Your task to perform on an android device: toggle improve location accuracy Image 0: 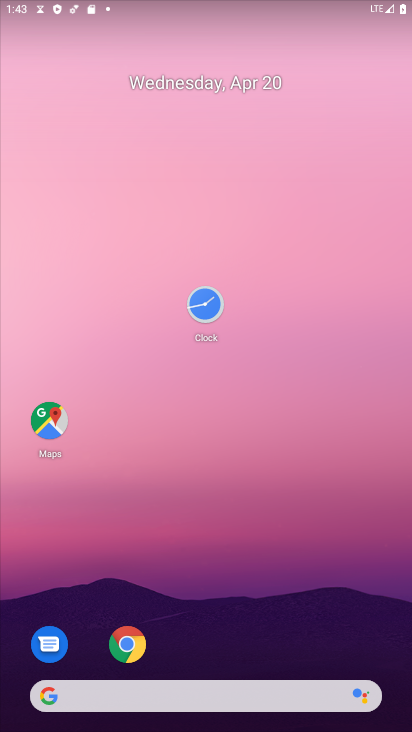
Step 0: drag from (296, 667) to (246, 170)
Your task to perform on an android device: toggle improve location accuracy Image 1: 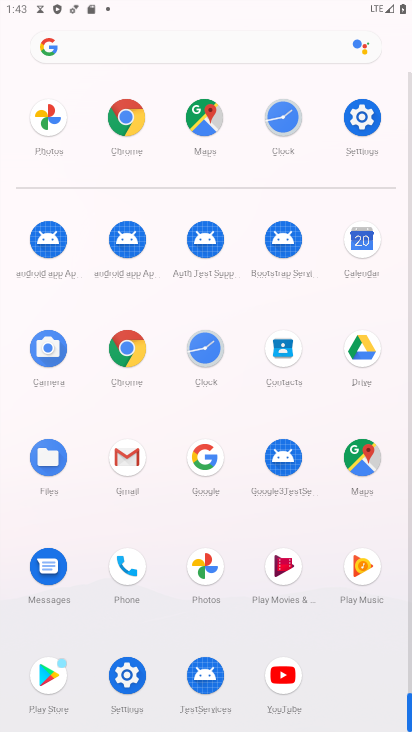
Step 1: click (126, 677)
Your task to perform on an android device: toggle improve location accuracy Image 2: 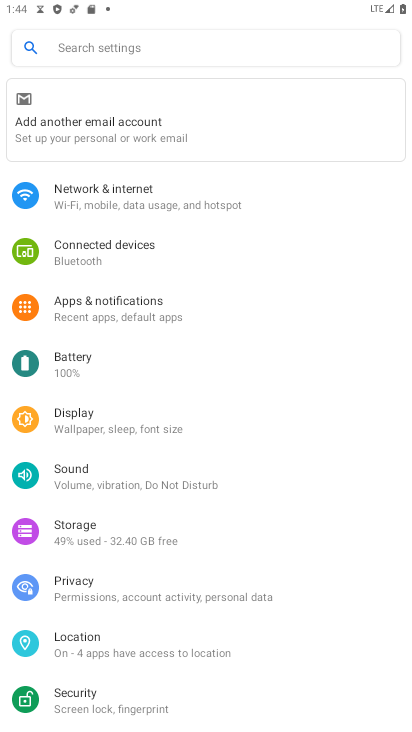
Step 2: drag from (149, 646) to (130, 272)
Your task to perform on an android device: toggle improve location accuracy Image 3: 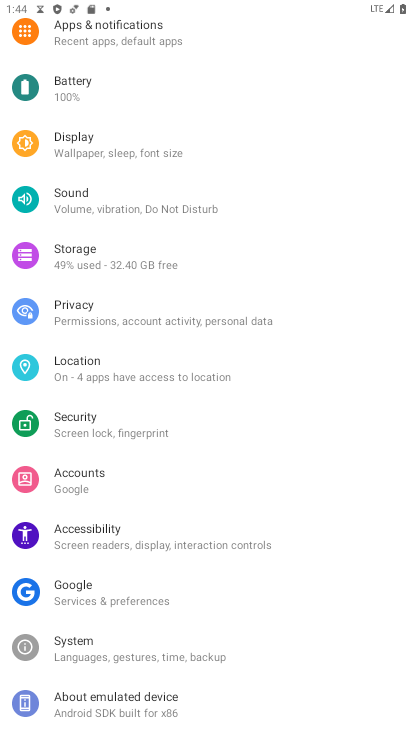
Step 3: click (100, 363)
Your task to perform on an android device: toggle improve location accuracy Image 4: 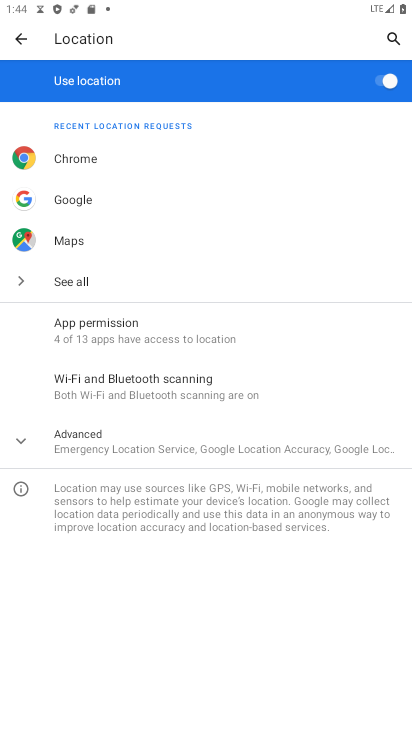
Step 4: click (156, 446)
Your task to perform on an android device: toggle improve location accuracy Image 5: 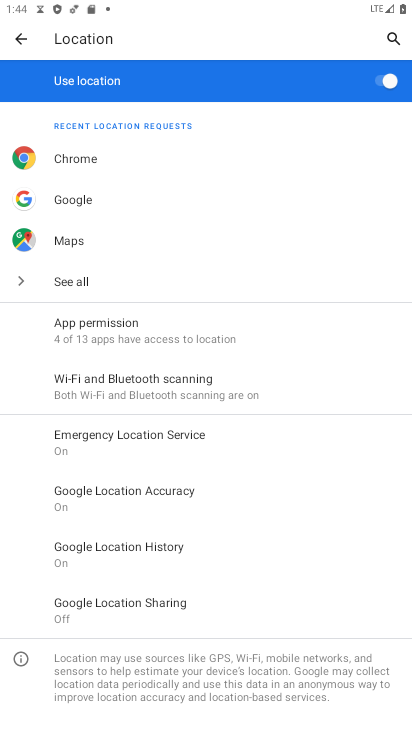
Step 5: click (159, 487)
Your task to perform on an android device: toggle improve location accuracy Image 6: 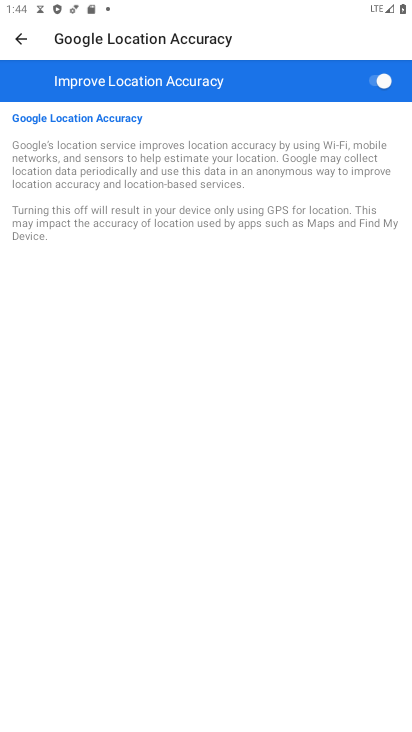
Step 6: click (386, 79)
Your task to perform on an android device: toggle improve location accuracy Image 7: 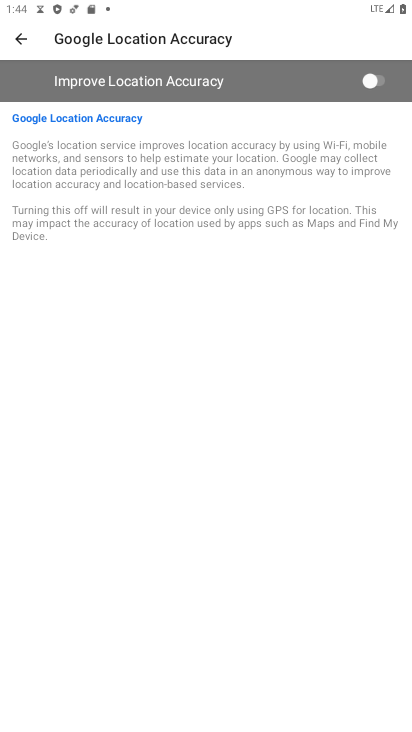
Step 7: task complete